Your task to perform on an android device: Go to Maps Image 0: 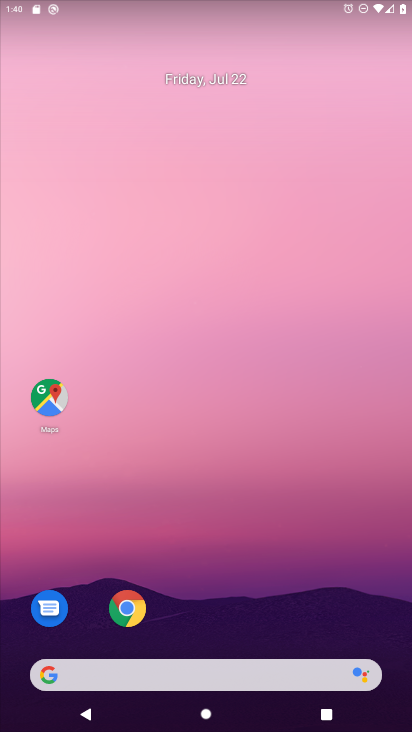
Step 0: drag from (306, 619) to (175, 12)
Your task to perform on an android device: Go to Maps Image 1: 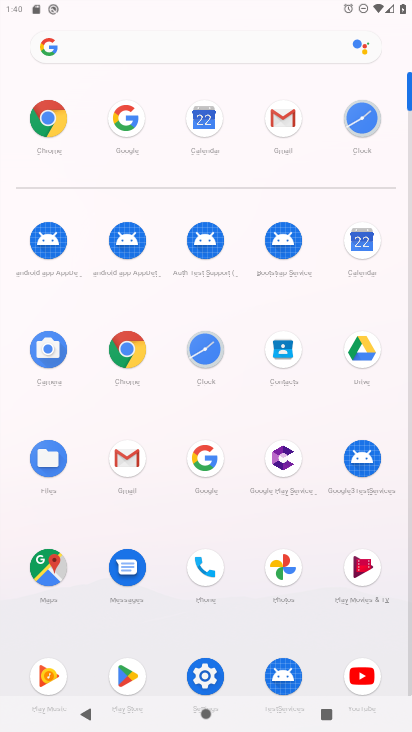
Step 1: click (45, 557)
Your task to perform on an android device: Go to Maps Image 2: 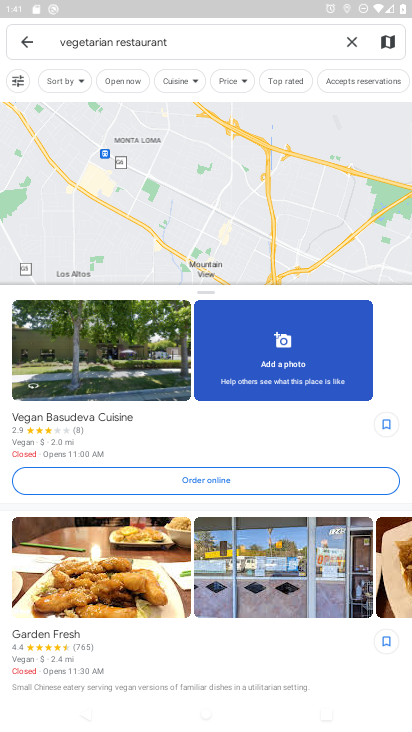
Step 2: click (344, 42)
Your task to perform on an android device: Go to Maps Image 3: 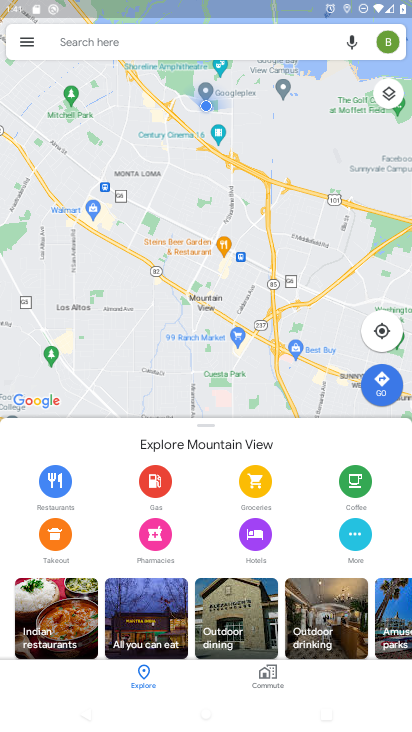
Step 3: task complete